Your task to perform on an android device: open app "DoorDash - Dasher" Image 0: 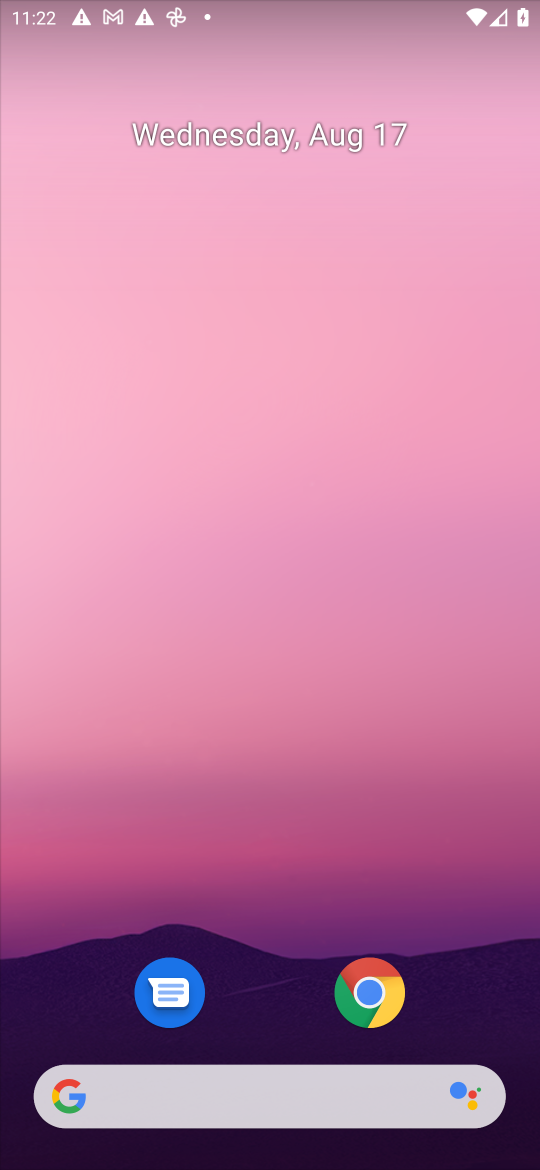
Step 0: drag from (452, 992) to (155, 26)
Your task to perform on an android device: open app "DoorDash - Dasher" Image 1: 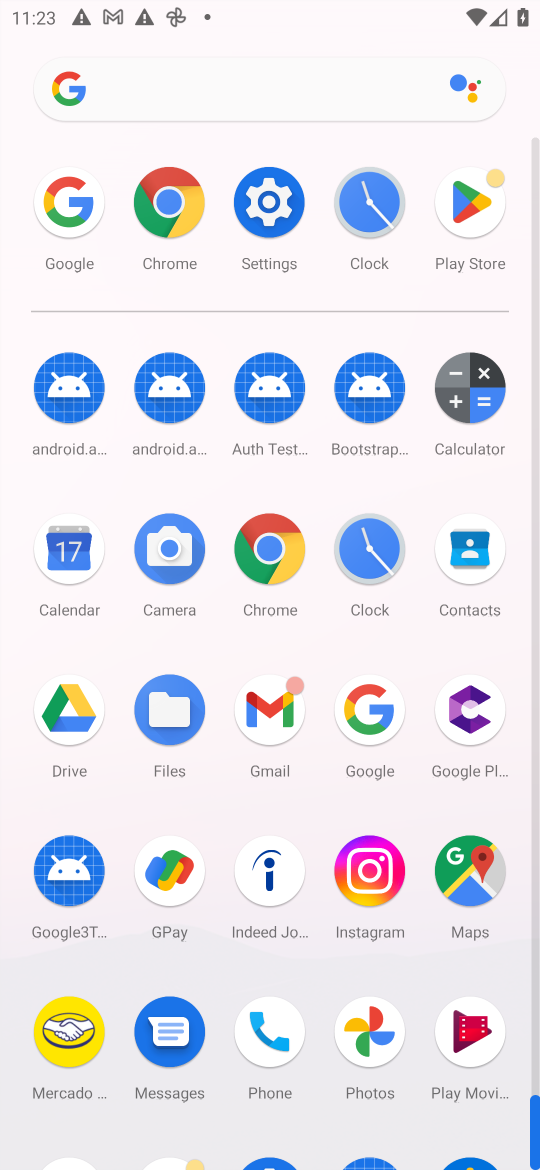
Step 1: click (457, 206)
Your task to perform on an android device: open app "DoorDash - Dasher" Image 2: 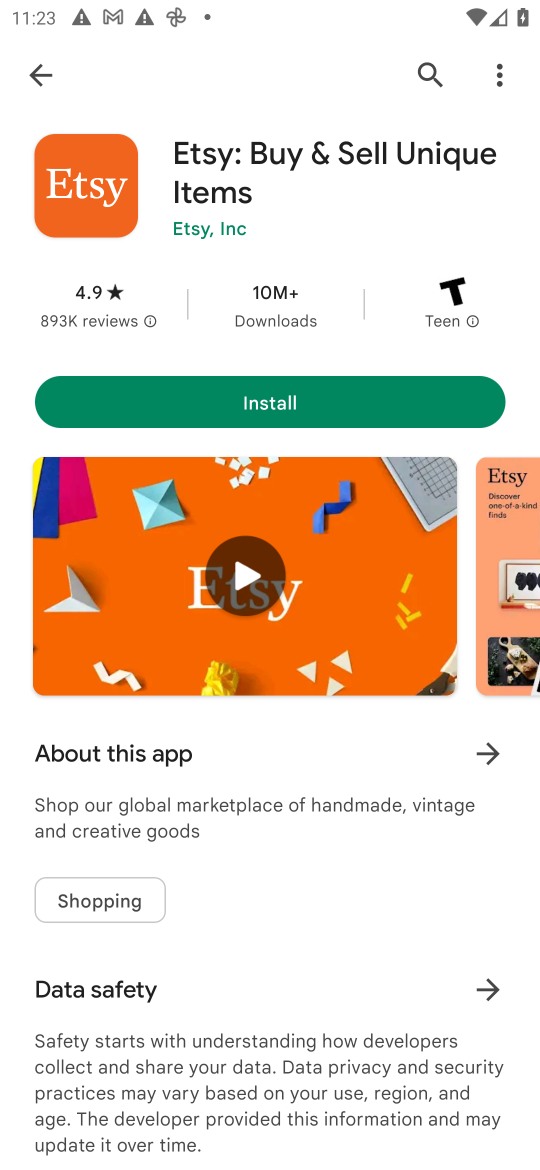
Step 2: press back button
Your task to perform on an android device: open app "DoorDash - Dasher" Image 3: 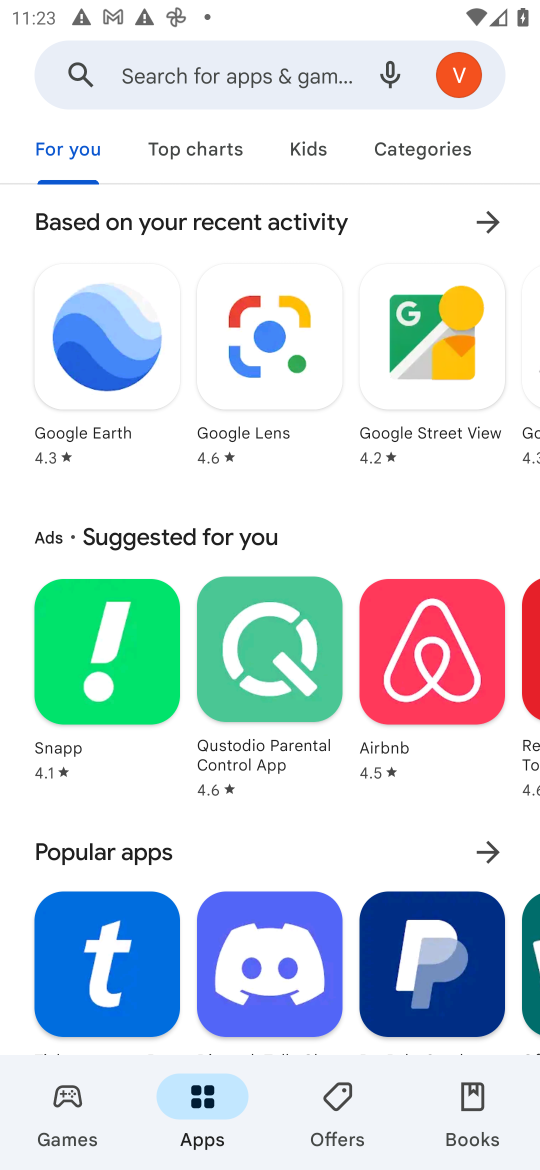
Step 3: click (226, 67)
Your task to perform on an android device: open app "DoorDash - Dasher" Image 4: 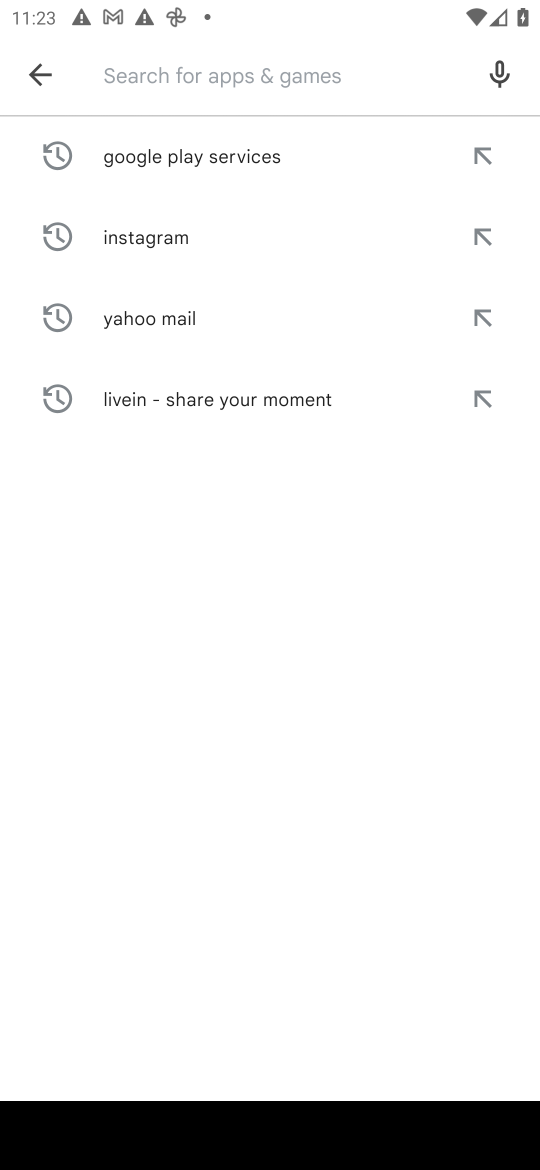
Step 4: type "DoorDash - Dasher"
Your task to perform on an android device: open app "DoorDash - Dasher" Image 5: 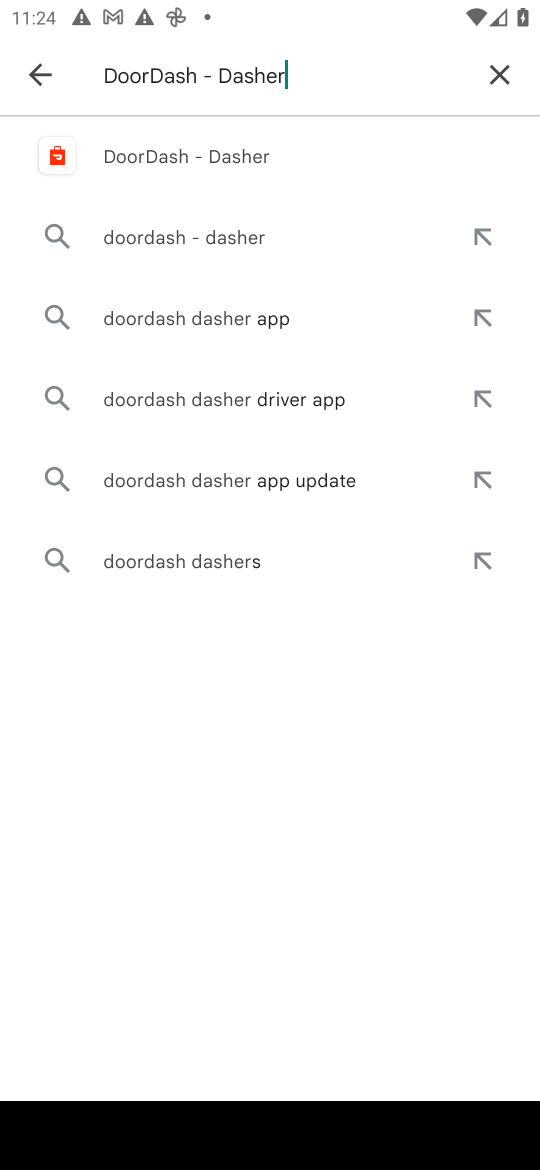
Step 5: click (226, 157)
Your task to perform on an android device: open app "DoorDash - Dasher" Image 6: 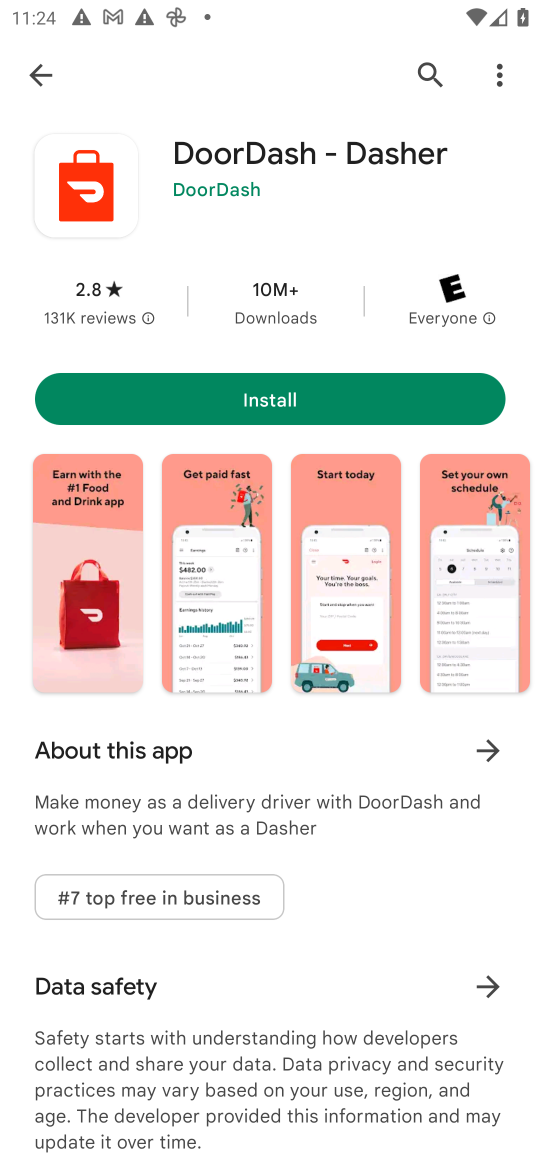
Step 6: task complete